Your task to perform on an android device: Go to network settings Image 0: 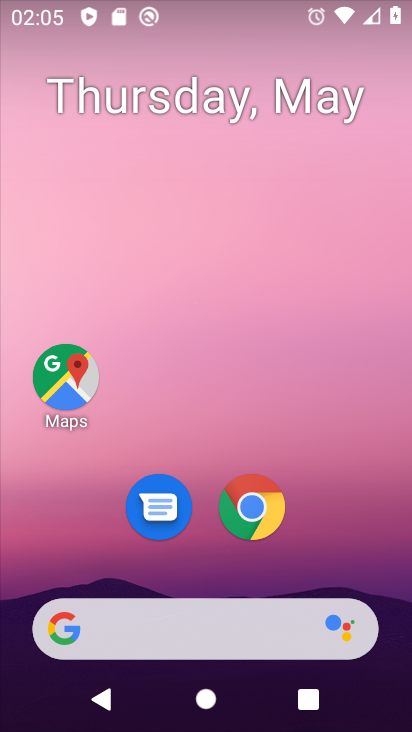
Step 0: drag from (383, 552) to (310, 142)
Your task to perform on an android device: Go to network settings Image 1: 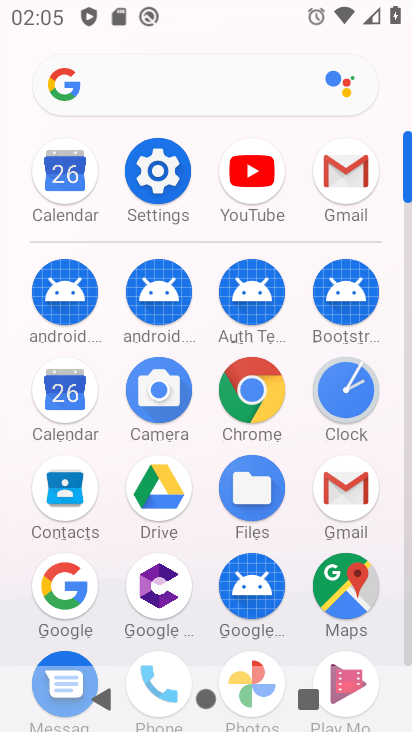
Step 1: click (185, 194)
Your task to perform on an android device: Go to network settings Image 2: 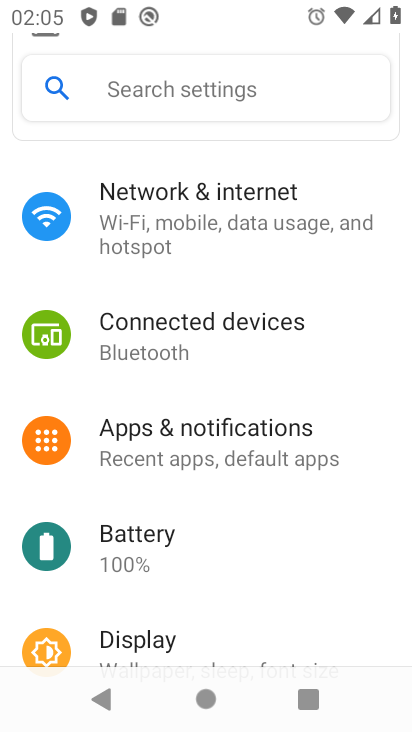
Step 2: click (185, 194)
Your task to perform on an android device: Go to network settings Image 3: 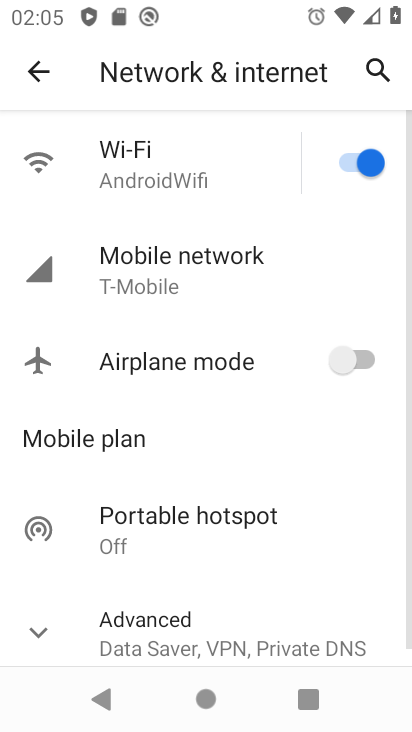
Step 3: task complete